Your task to perform on an android device: uninstall "Facebook" Image 0: 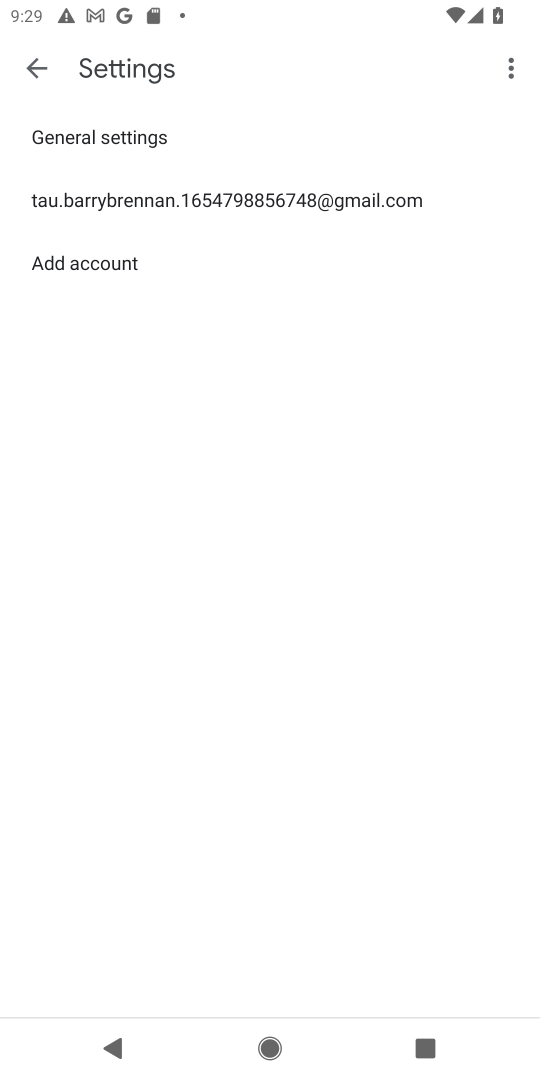
Step 0: press enter
Your task to perform on an android device: uninstall "Facebook" Image 1: 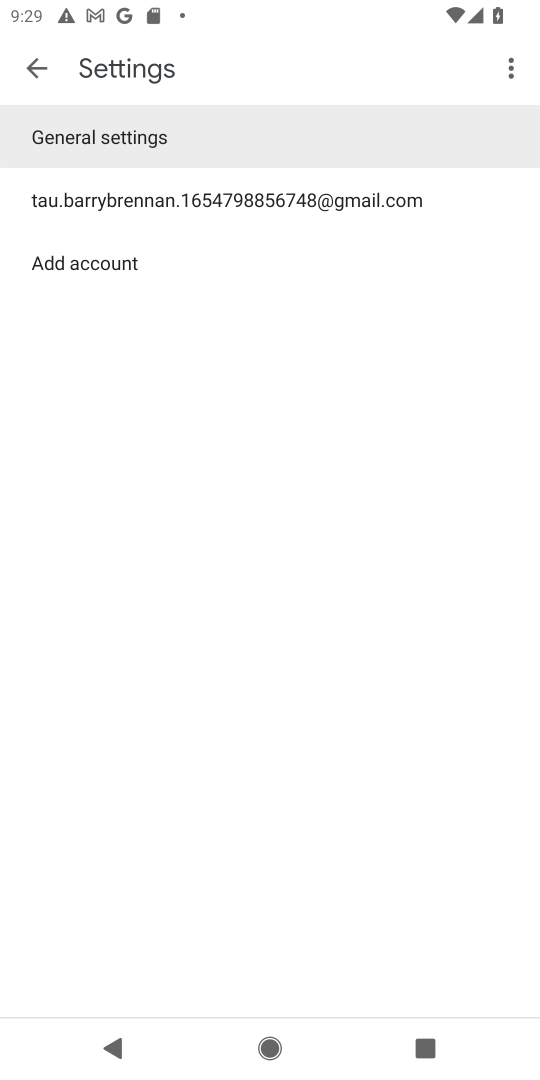
Step 1: press home button
Your task to perform on an android device: uninstall "Facebook" Image 2: 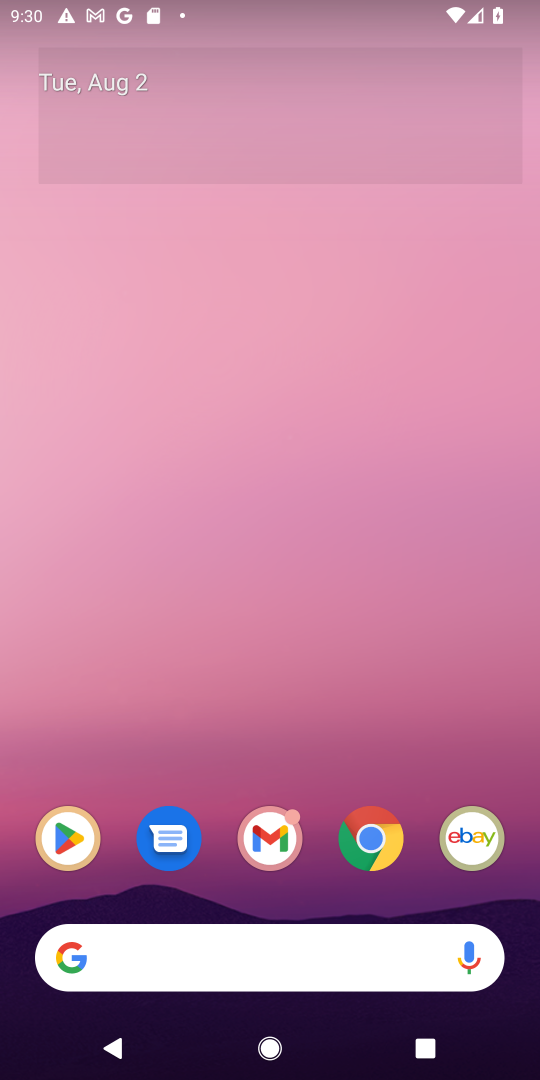
Step 2: drag from (317, 709) to (323, 117)
Your task to perform on an android device: uninstall "Facebook" Image 3: 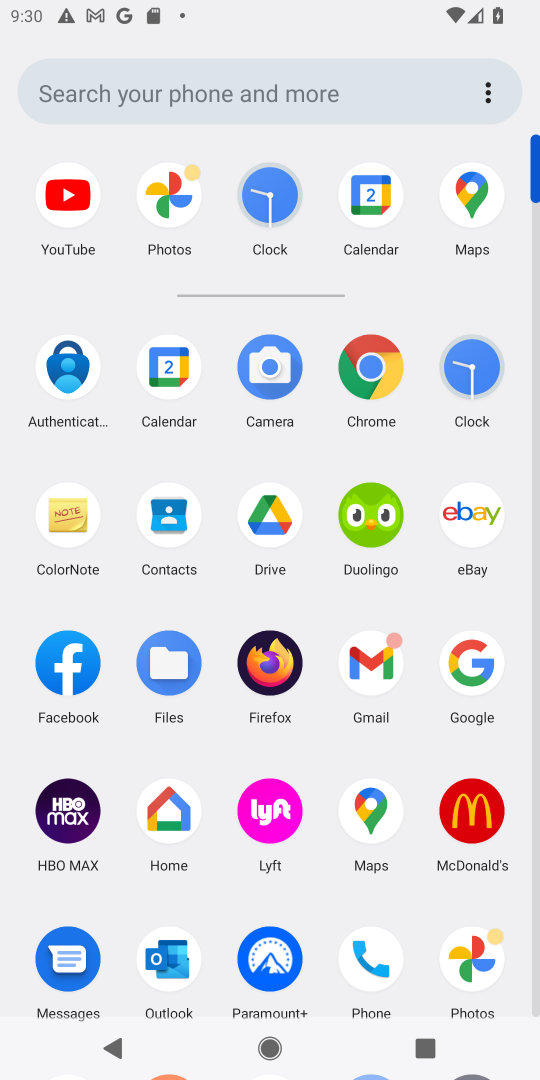
Step 3: drag from (516, 906) to (516, 526)
Your task to perform on an android device: uninstall "Facebook" Image 4: 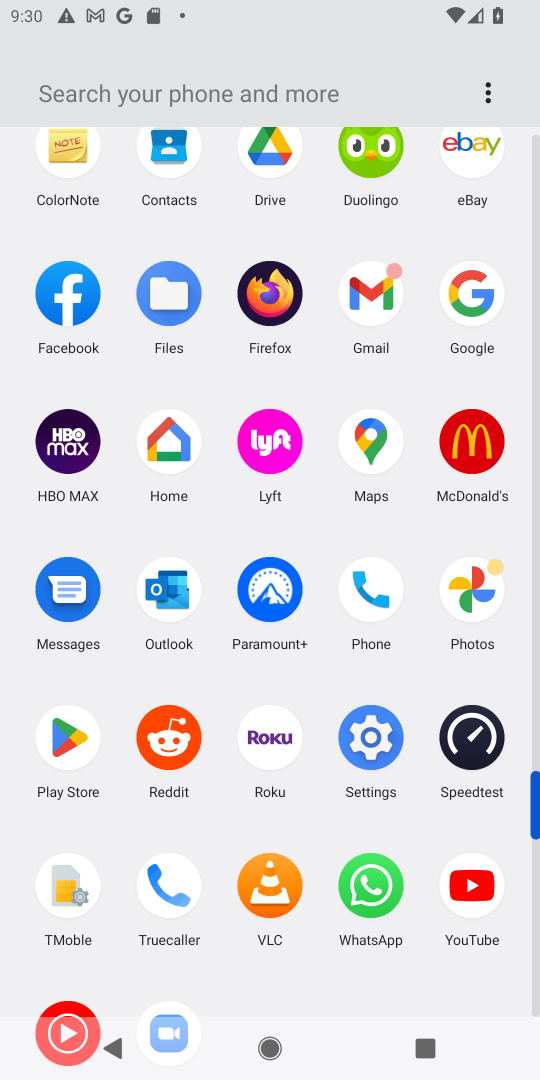
Step 4: click (56, 743)
Your task to perform on an android device: uninstall "Facebook" Image 5: 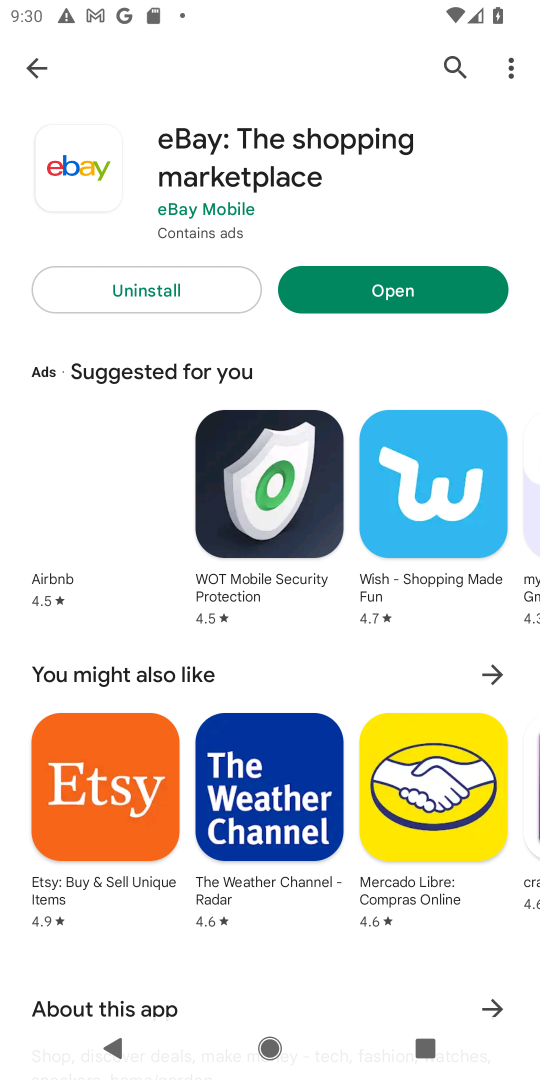
Step 5: click (449, 66)
Your task to perform on an android device: uninstall "Facebook" Image 6: 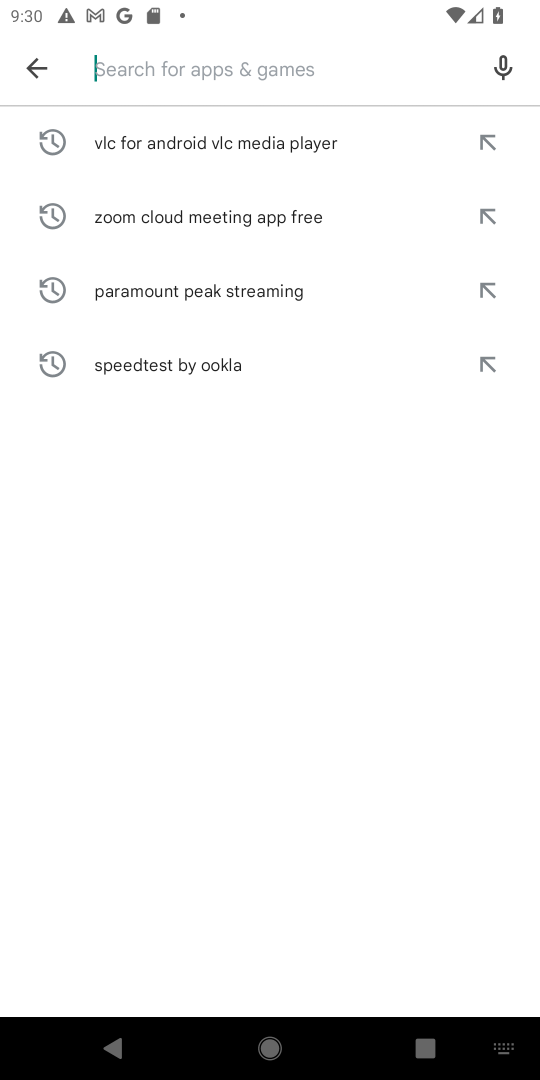
Step 6: type "facebook"
Your task to perform on an android device: uninstall "Facebook" Image 7: 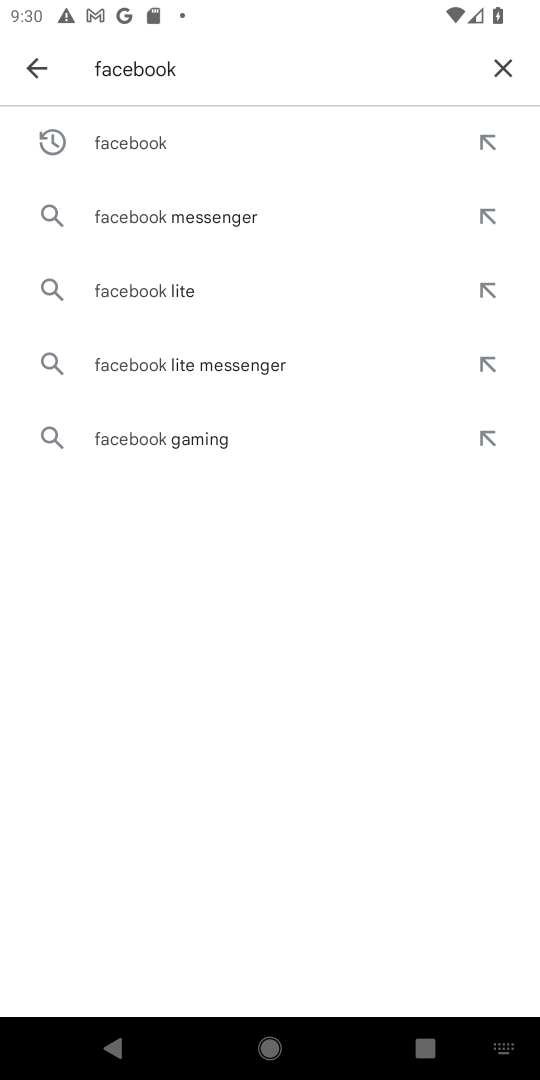
Step 7: click (266, 143)
Your task to perform on an android device: uninstall "Facebook" Image 8: 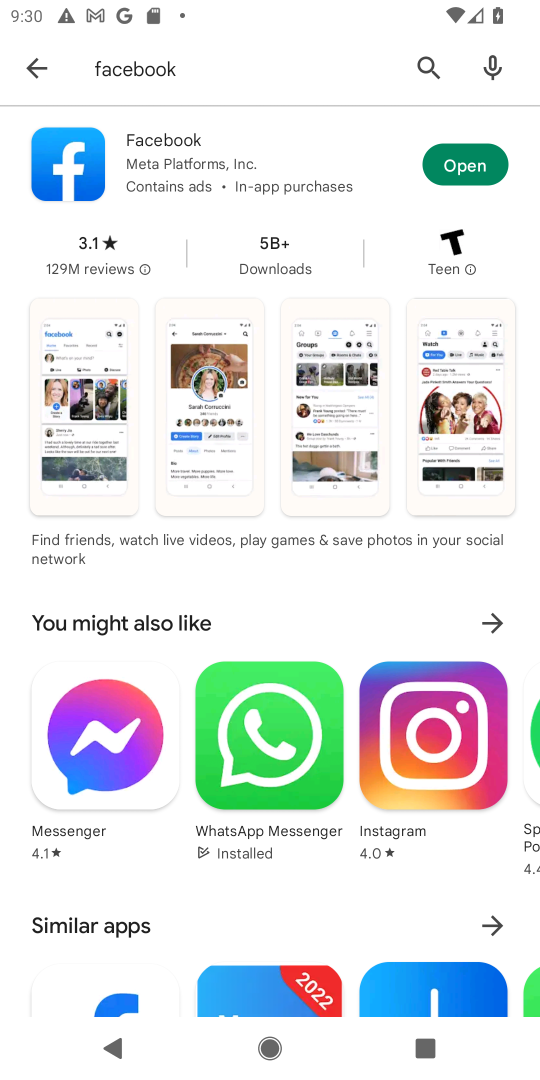
Step 8: task complete